Your task to perform on an android device: Clear the shopping cart on amazon. Add "macbook pro 13 inch" to the cart on amazon, then select checkout. Image 0: 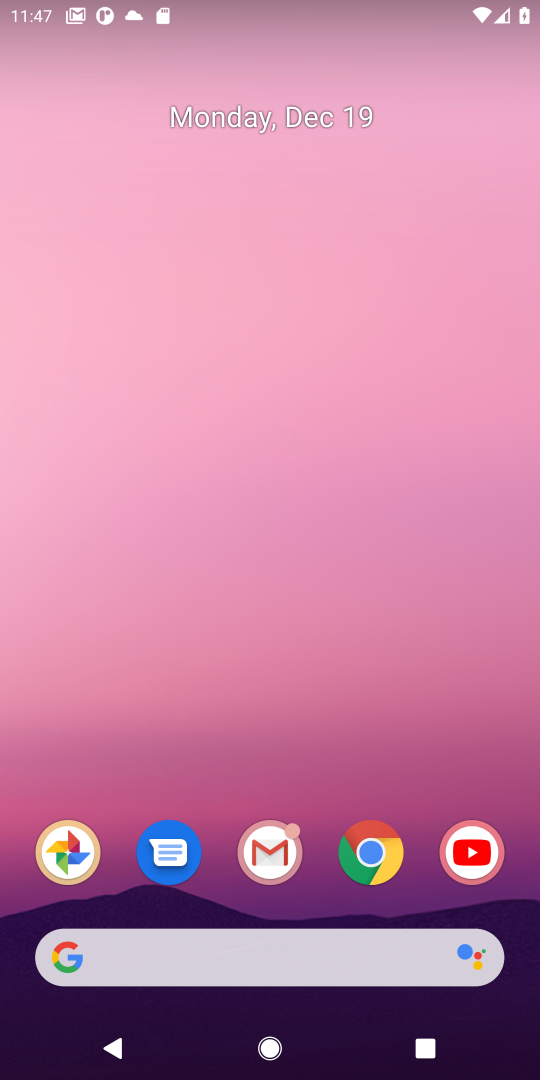
Step 0: click (370, 857)
Your task to perform on an android device: Clear the shopping cart on amazon. Add "macbook pro 13 inch" to the cart on amazon, then select checkout. Image 1: 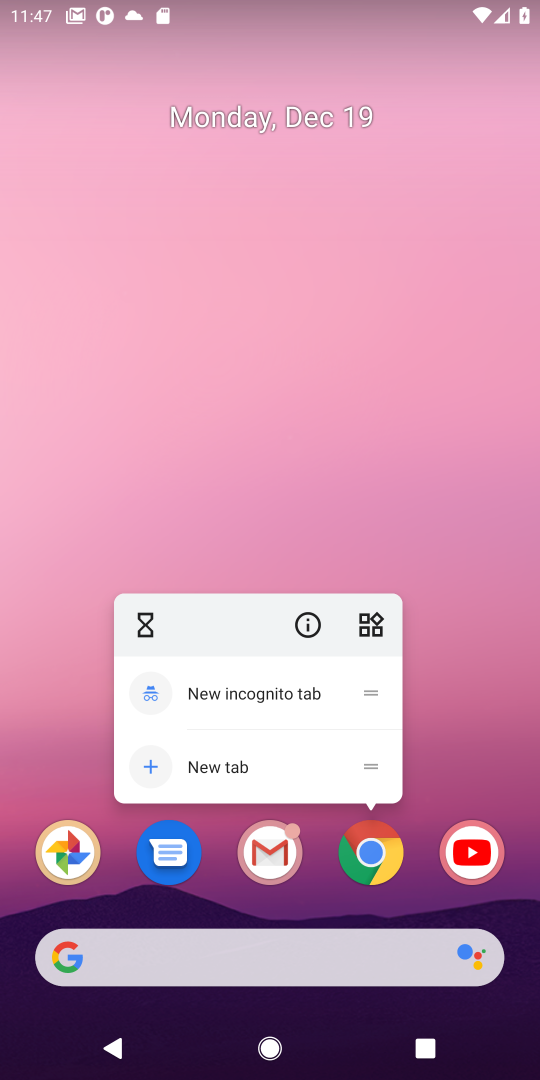
Step 1: click (370, 857)
Your task to perform on an android device: Clear the shopping cart on amazon. Add "macbook pro 13 inch" to the cart on amazon, then select checkout. Image 2: 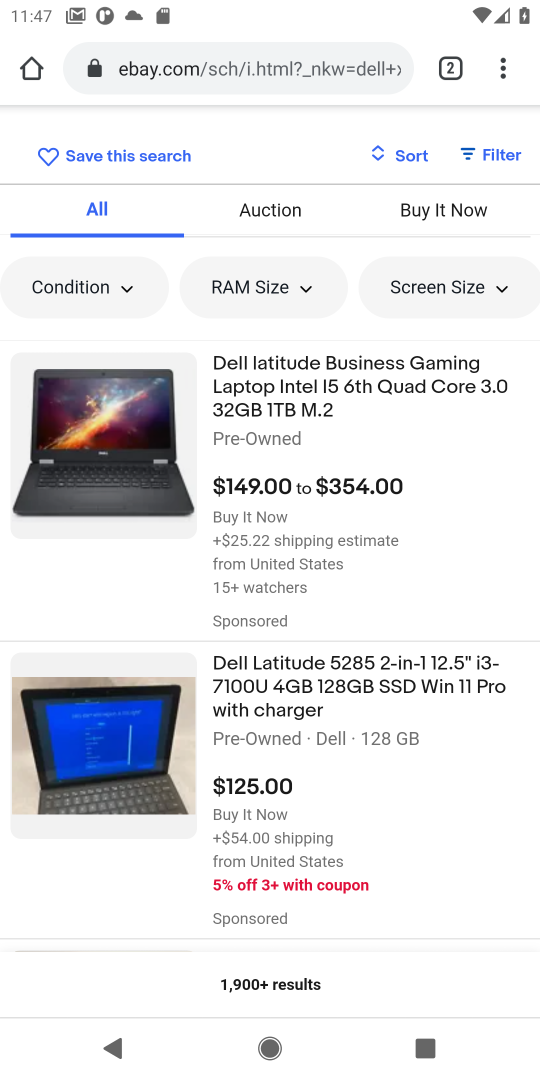
Step 2: click (176, 68)
Your task to perform on an android device: Clear the shopping cart on amazon. Add "macbook pro 13 inch" to the cart on amazon, then select checkout. Image 3: 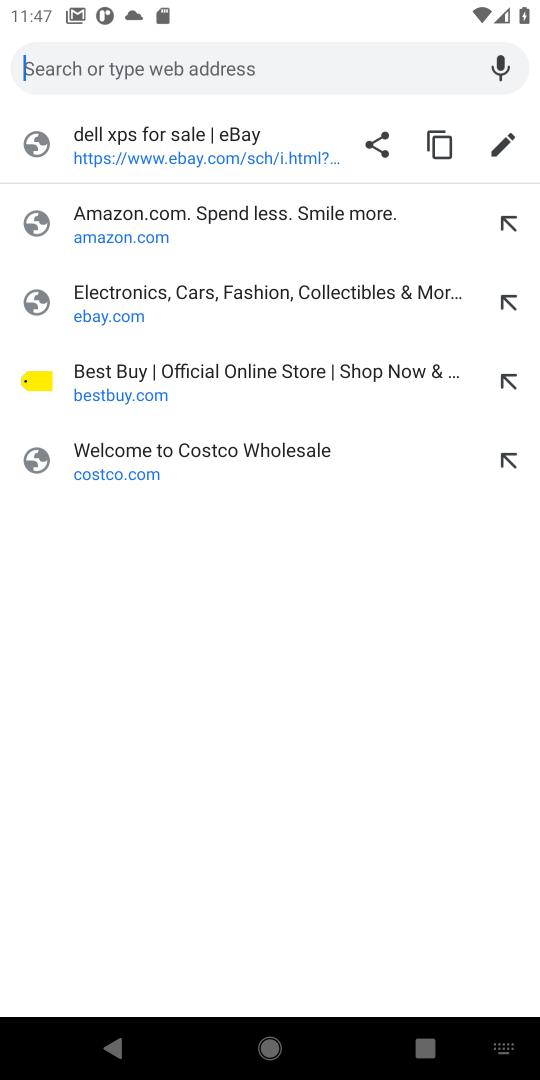
Step 3: click (100, 238)
Your task to perform on an android device: Clear the shopping cart on amazon. Add "macbook pro 13 inch" to the cart on amazon, then select checkout. Image 4: 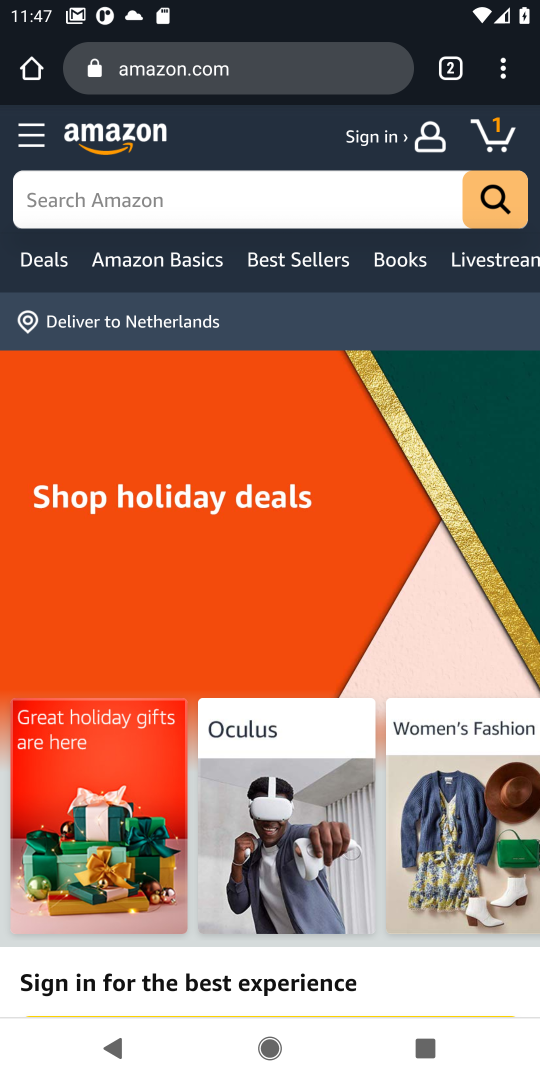
Step 4: click (483, 139)
Your task to perform on an android device: Clear the shopping cart on amazon. Add "macbook pro 13 inch" to the cart on amazon, then select checkout. Image 5: 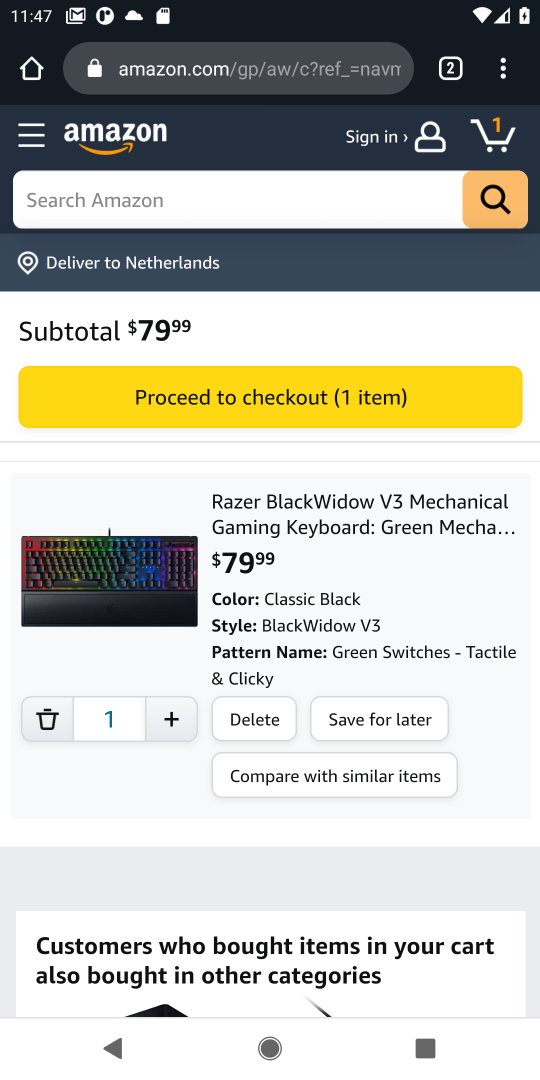
Step 5: click (244, 725)
Your task to perform on an android device: Clear the shopping cart on amazon. Add "macbook pro 13 inch" to the cart on amazon, then select checkout. Image 6: 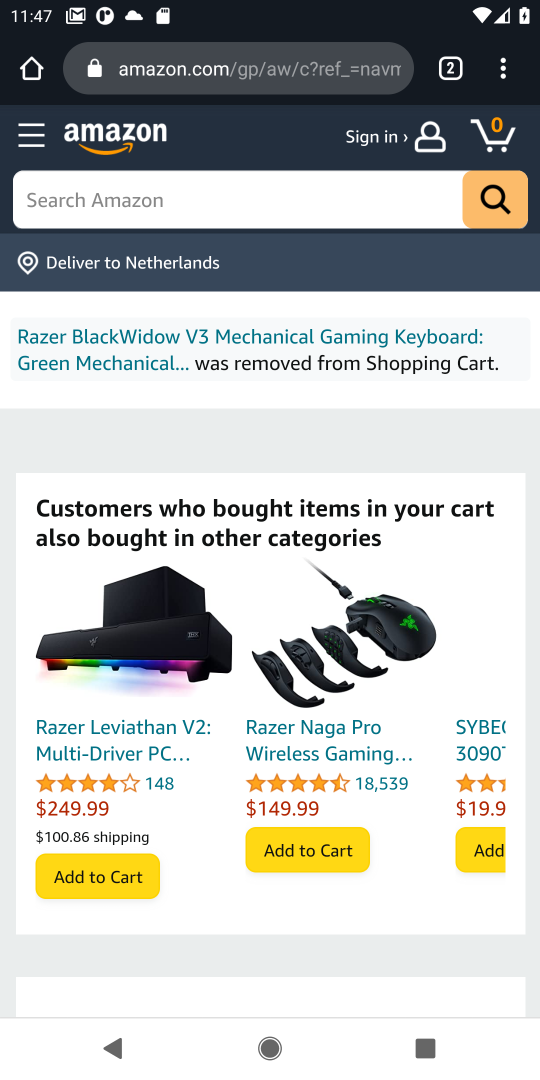
Step 6: click (105, 194)
Your task to perform on an android device: Clear the shopping cart on amazon. Add "macbook pro 13 inch" to the cart on amazon, then select checkout. Image 7: 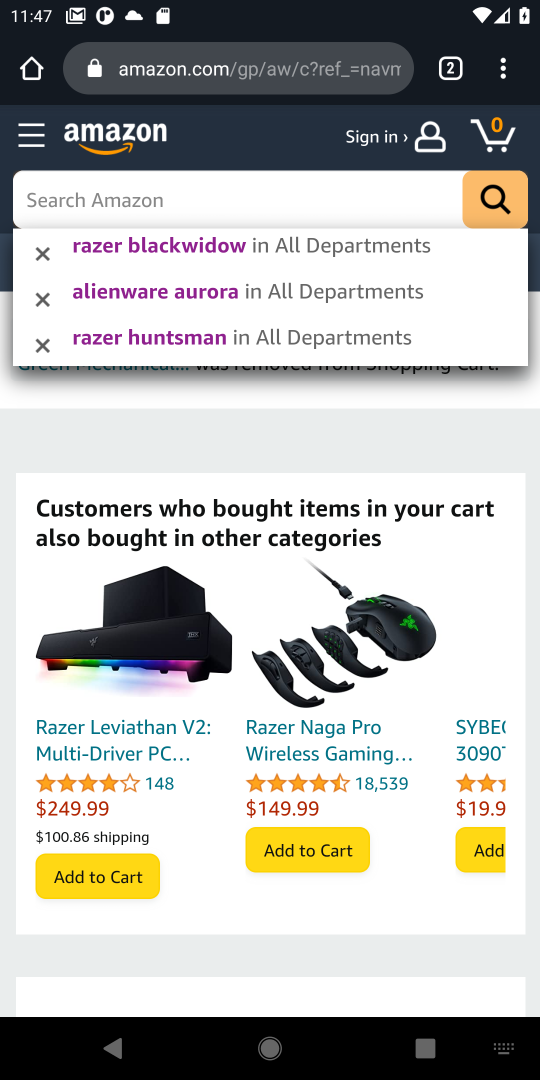
Step 7: type "macbook pro 13 inch"
Your task to perform on an android device: Clear the shopping cart on amazon. Add "macbook pro 13 inch" to the cart on amazon, then select checkout. Image 8: 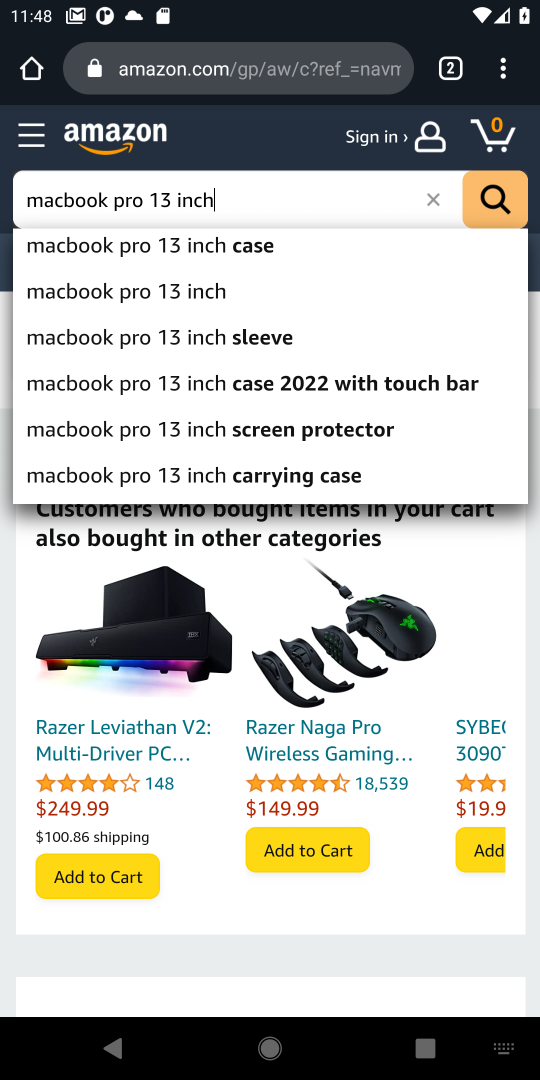
Step 8: click (180, 296)
Your task to perform on an android device: Clear the shopping cart on amazon. Add "macbook pro 13 inch" to the cart on amazon, then select checkout. Image 9: 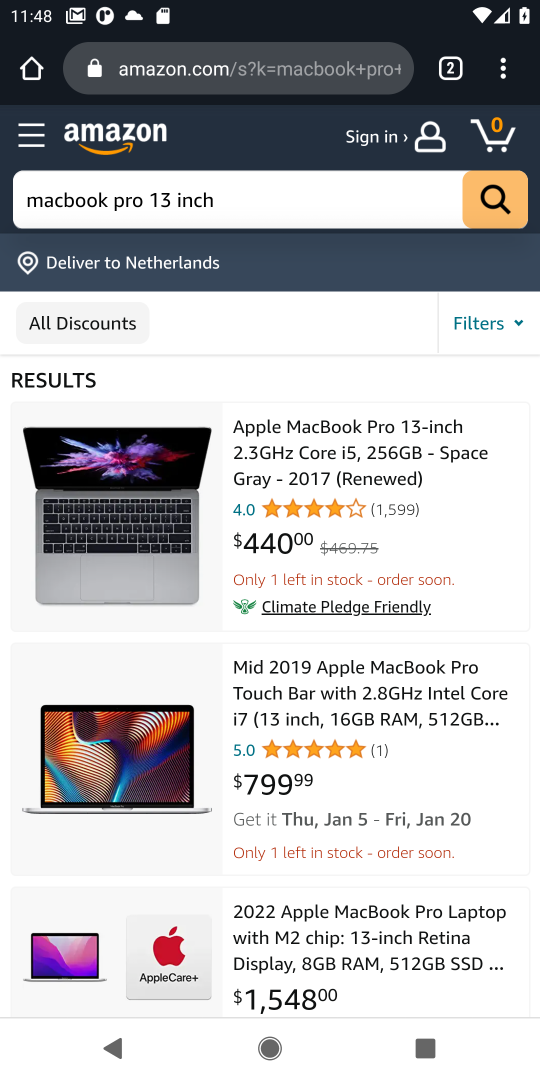
Step 9: click (287, 461)
Your task to perform on an android device: Clear the shopping cart on amazon. Add "macbook pro 13 inch" to the cart on amazon, then select checkout. Image 10: 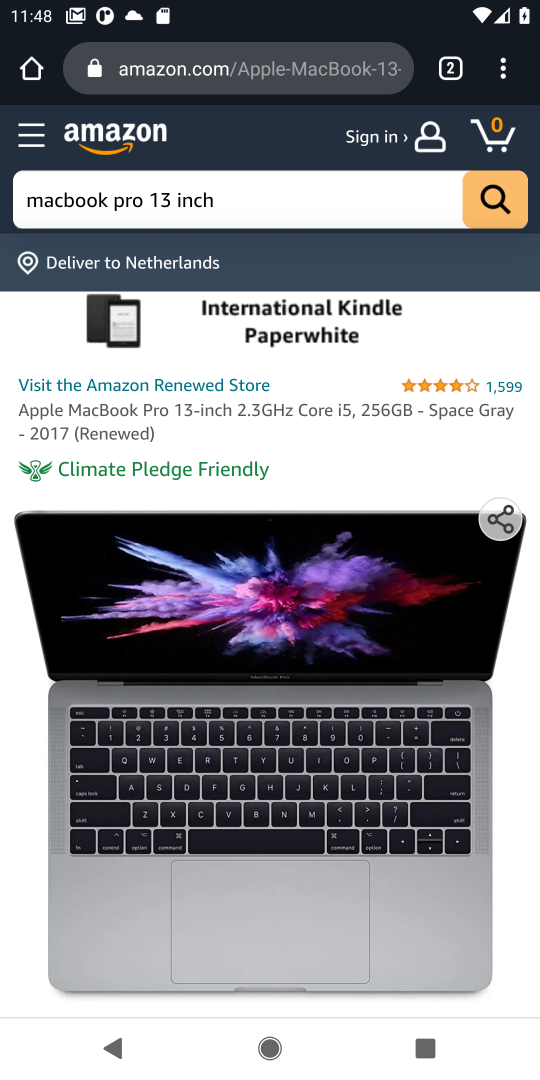
Step 10: drag from (284, 695) to (249, 290)
Your task to perform on an android device: Clear the shopping cart on amazon. Add "macbook pro 13 inch" to the cart on amazon, then select checkout. Image 11: 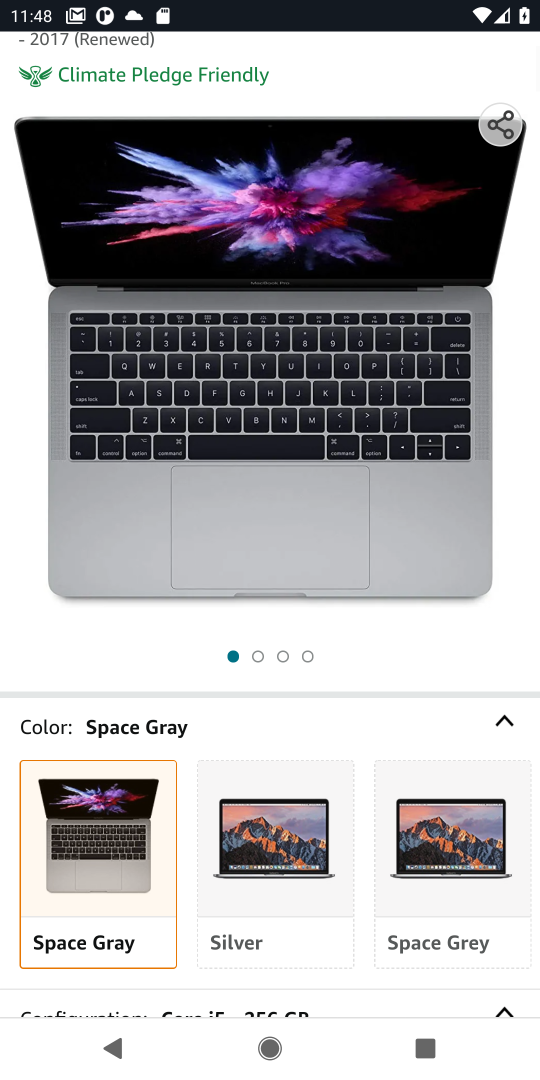
Step 11: drag from (236, 737) to (224, 349)
Your task to perform on an android device: Clear the shopping cart on amazon. Add "macbook pro 13 inch" to the cart on amazon, then select checkout. Image 12: 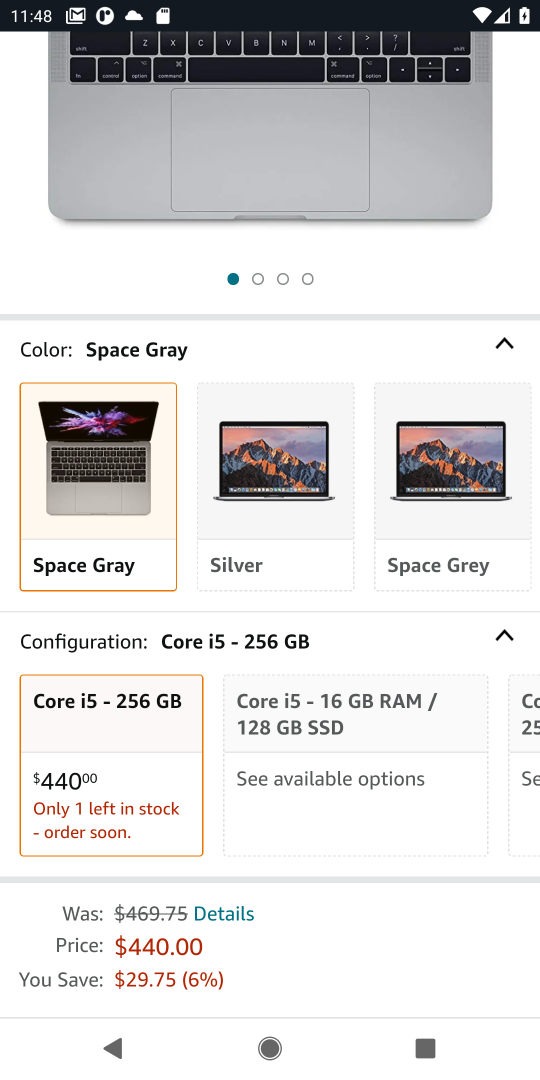
Step 12: drag from (272, 807) to (266, 391)
Your task to perform on an android device: Clear the shopping cart on amazon. Add "macbook pro 13 inch" to the cart on amazon, then select checkout. Image 13: 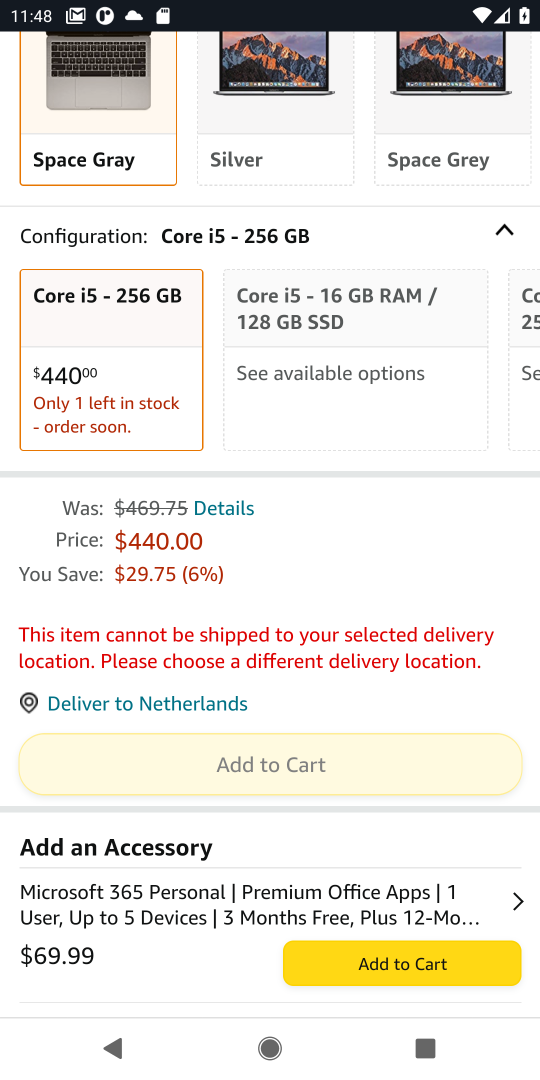
Step 13: drag from (303, 715) to (301, 422)
Your task to perform on an android device: Clear the shopping cart on amazon. Add "macbook pro 13 inch" to the cart on amazon, then select checkout. Image 14: 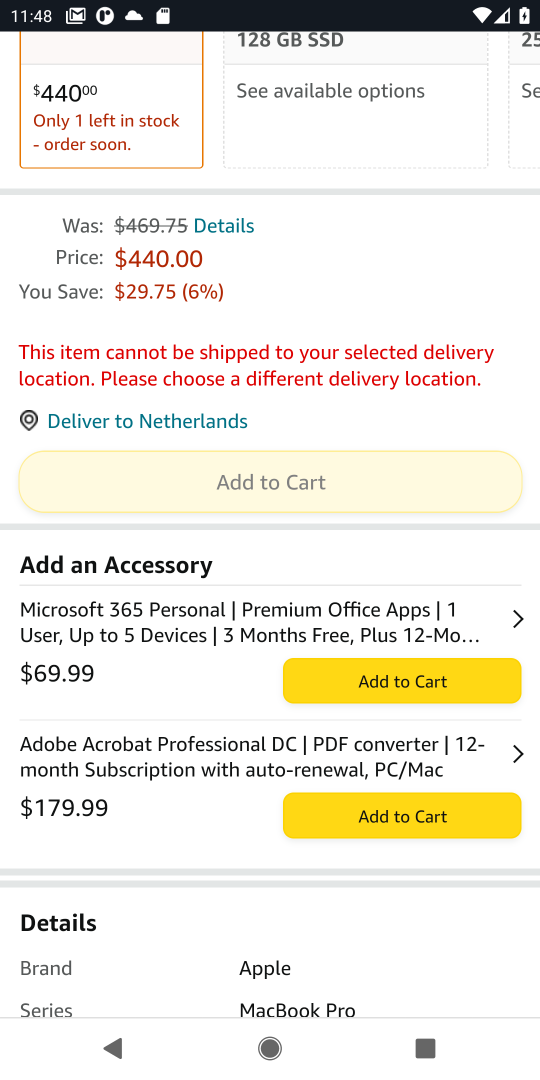
Step 14: drag from (301, 421) to (228, 837)
Your task to perform on an android device: Clear the shopping cart on amazon. Add "macbook pro 13 inch" to the cart on amazon, then select checkout. Image 15: 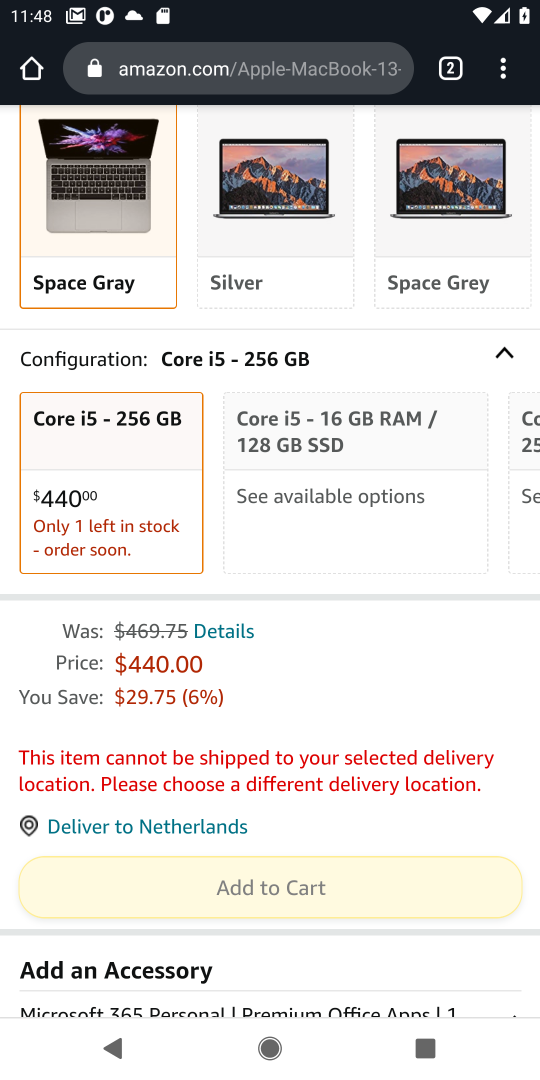
Step 15: drag from (249, 489) to (195, 859)
Your task to perform on an android device: Clear the shopping cart on amazon. Add "macbook pro 13 inch" to the cart on amazon, then select checkout. Image 16: 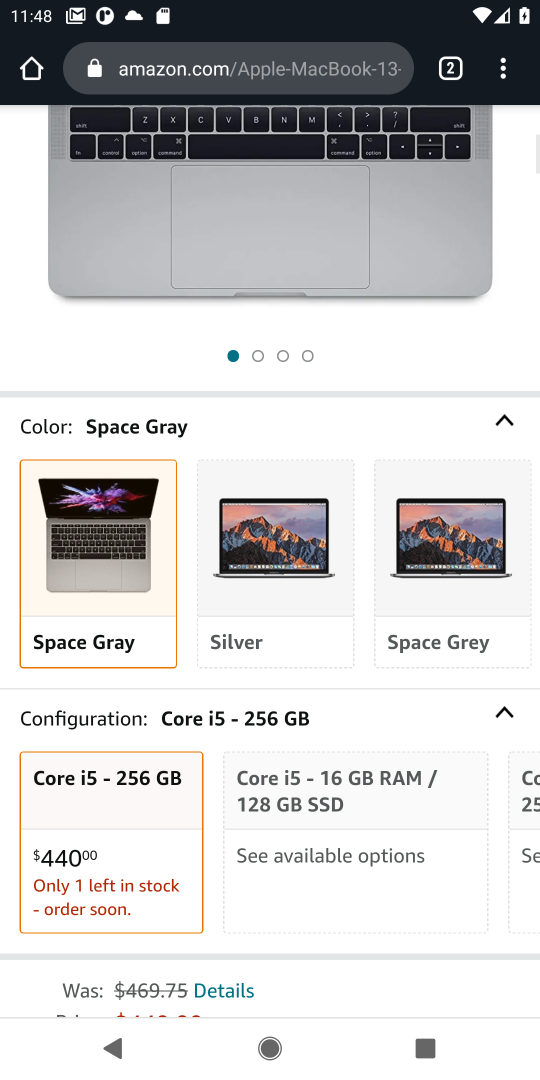
Step 16: drag from (295, 409) to (275, 805)
Your task to perform on an android device: Clear the shopping cart on amazon. Add "macbook pro 13 inch" to the cart on amazon, then select checkout. Image 17: 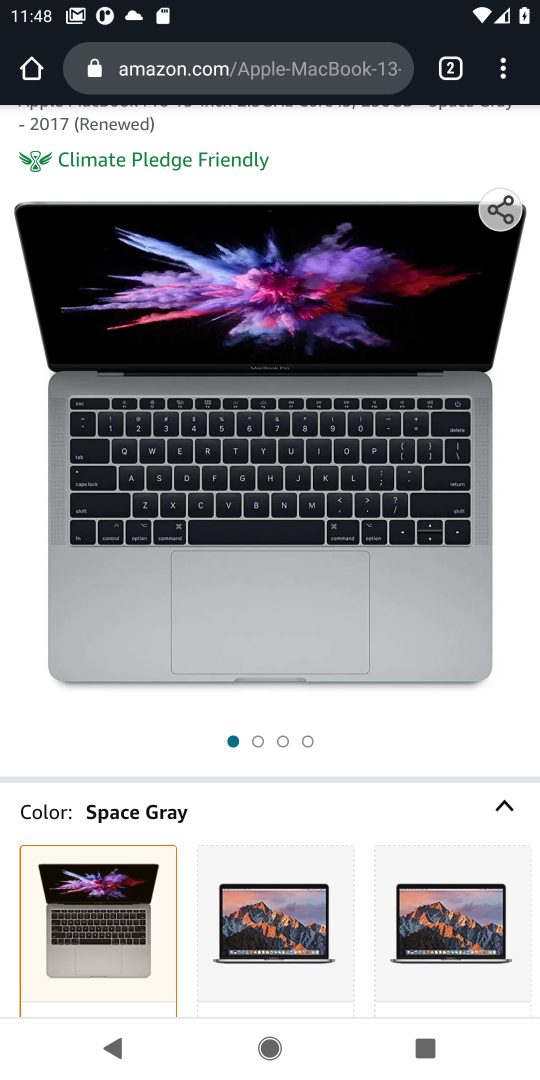
Step 17: press back button
Your task to perform on an android device: Clear the shopping cart on amazon. Add "macbook pro 13 inch" to the cart on amazon, then select checkout. Image 18: 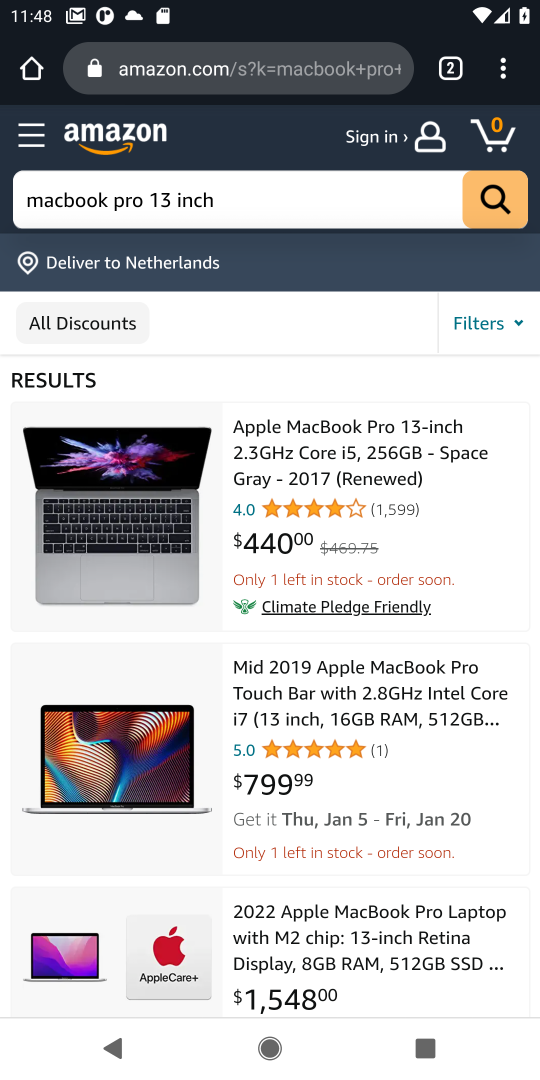
Step 18: drag from (230, 763) to (261, 543)
Your task to perform on an android device: Clear the shopping cart on amazon. Add "macbook pro 13 inch" to the cart on amazon, then select checkout. Image 19: 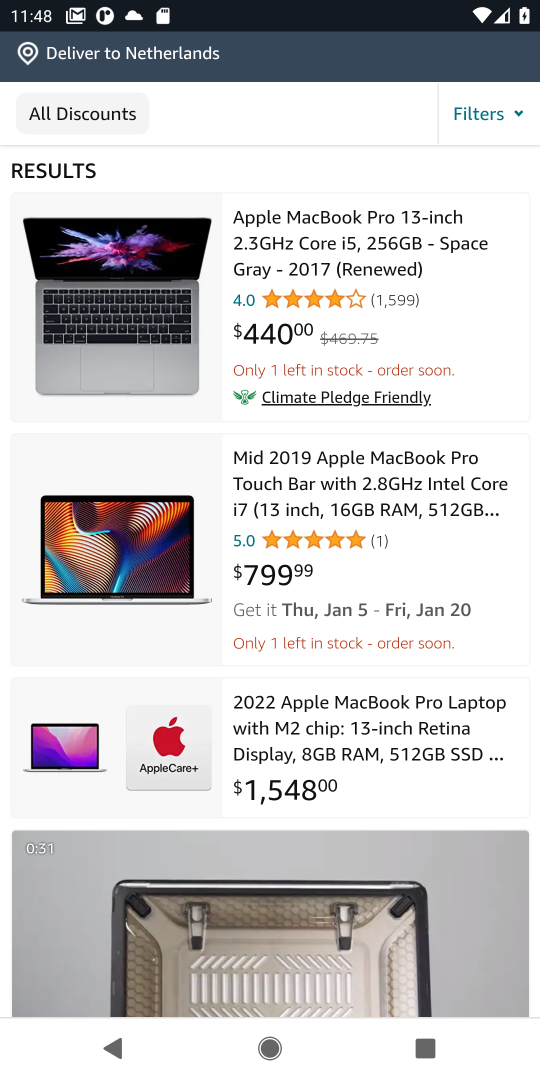
Step 19: click (325, 501)
Your task to perform on an android device: Clear the shopping cart on amazon. Add "macbook pro 13 inch" to the cart on amazon, then select checkout. Image 20: 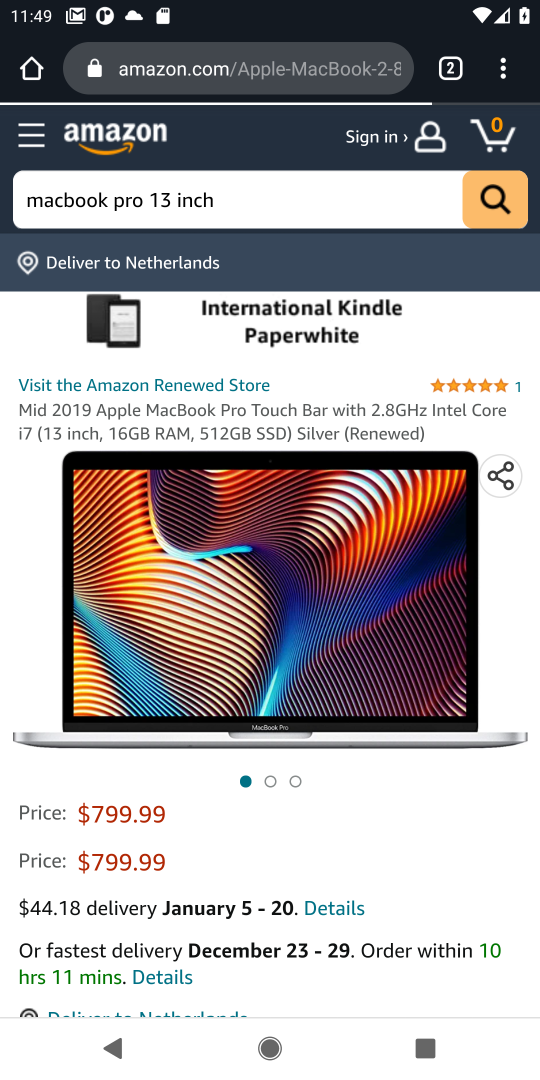
Step 20: drag from (280, 829) to (261, 333)
Your task to perform on an android device: Clear the shopping cart on amazon. Add "macbook pro 13 inch" to the cart on amazon, then select checkout. Image 21: 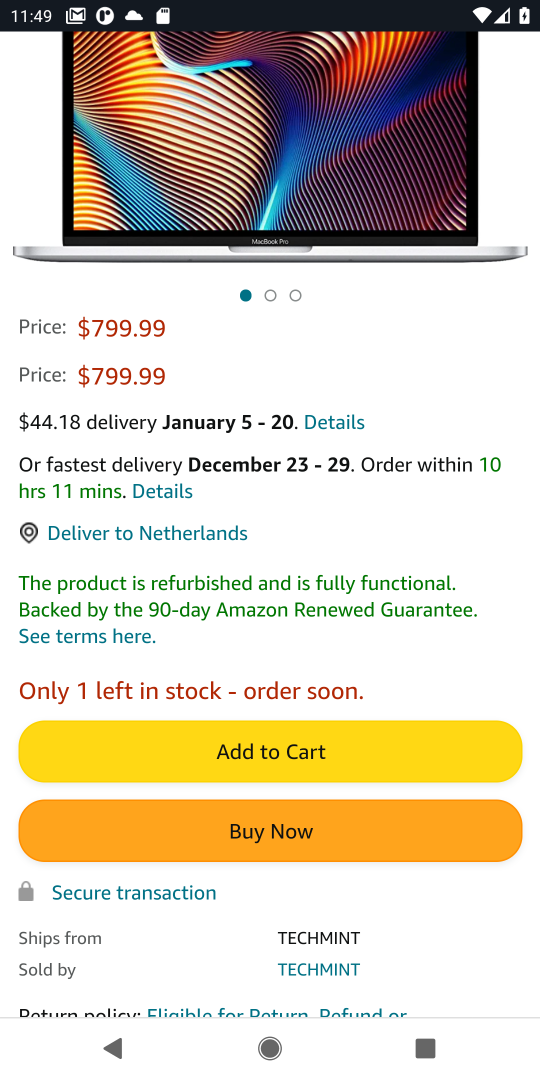
Step 21: click (237, 748)
Your task to perform on an android device: Clear the shopping cart on amazon. Add "macbook pro 13 inch" to the cart on amazon, then select checkout. Image 22: 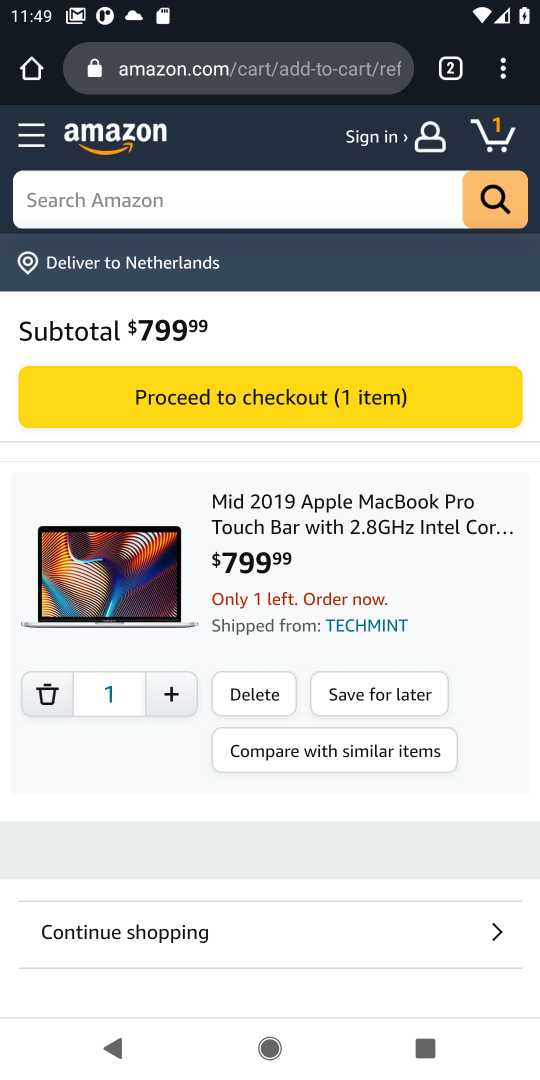
Step 22: click (258, 395)
Your task to perform on an android device: Clear the shopping cart on amazon. Add "macbook pro 13 inch" to the cart on amazon, then select checkout. Image 23: 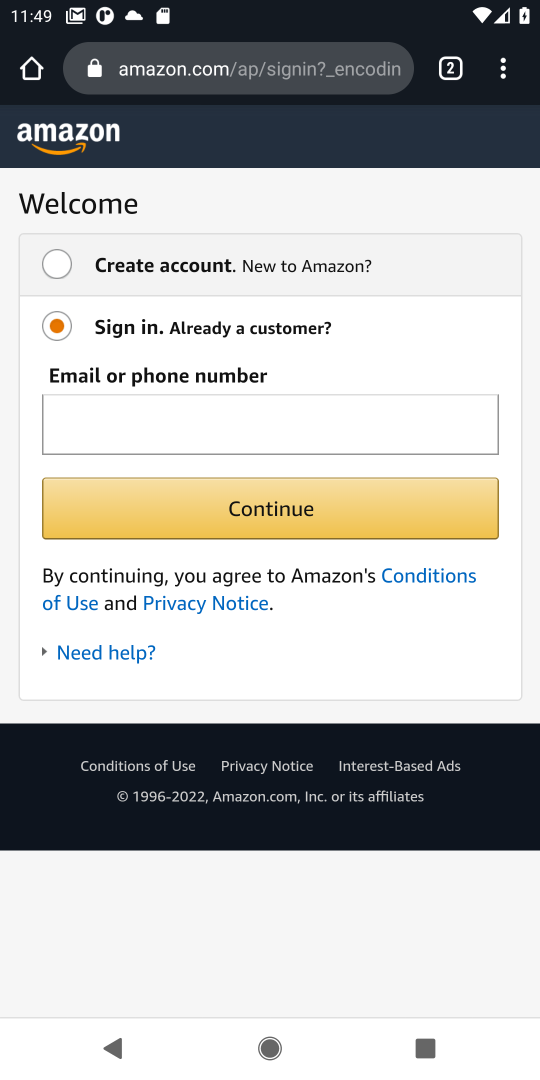
Step 23: task complete